Your task to perform on an android device: Go to calendar. Show me events next week Image 0: 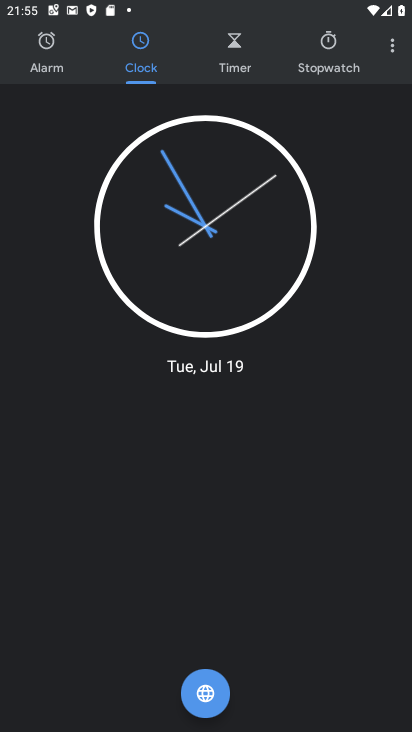
Step 0: press home button
Your task to perform on an android device: Go to calendar. Show me events next week Image 1: 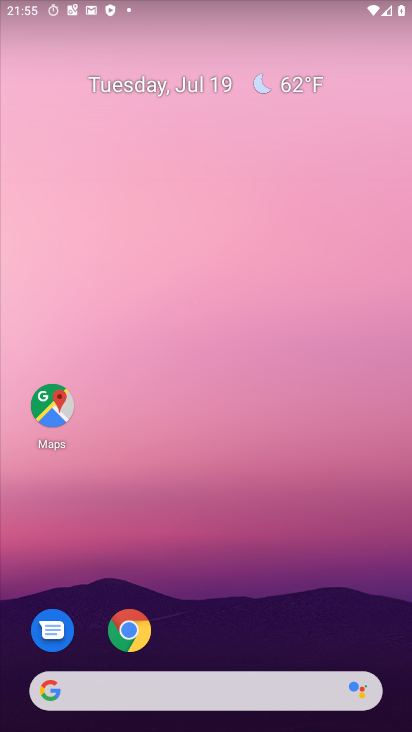
Step 1: drag from (93, 573) to (185, 266)
Your task to perform on an android device: Go to calendar. Show me events next week Image 2: 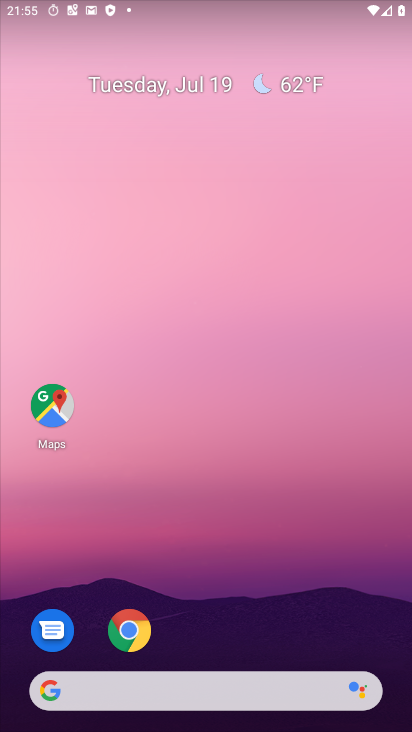
Step 2: drag from (15, 694) to (406, 280)
Your task to perform on an android device: Go to calendar. Show me events next week Image 3: 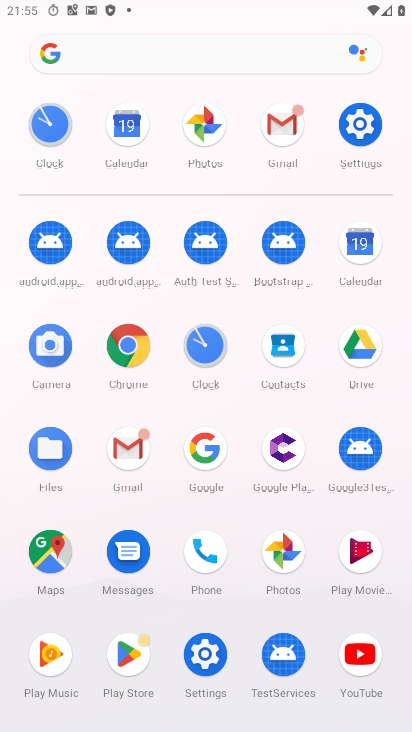
Step 3: click (368, 239)
Your task to perform on an android device: Go to calendar. Show me events next week Image 4: 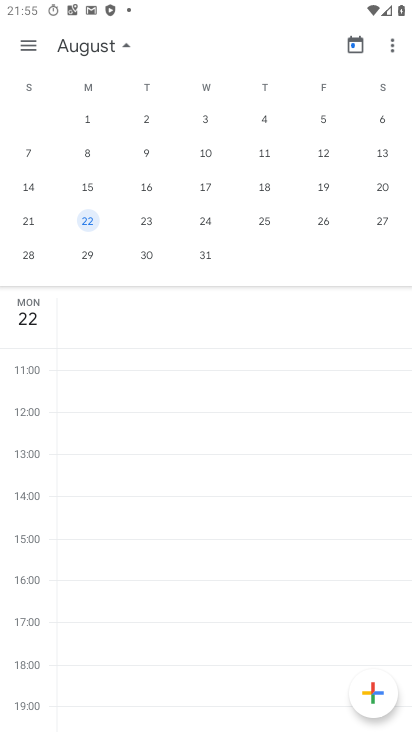
Step 4: drag from (18, 127) to (380, 94)
Your task to perform on an android device: Go to calendar. Show me events next week Image 5: 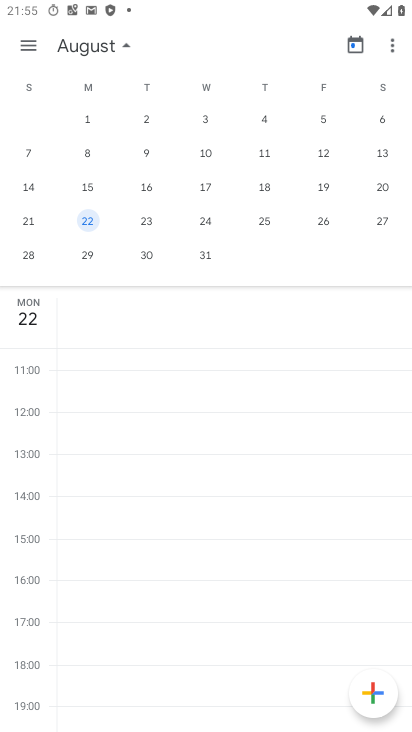
Step 5: drag from (30, 109) to (252, 132)
Your task to perform on an android device: Go to calendar. Show me events next week Image 6: 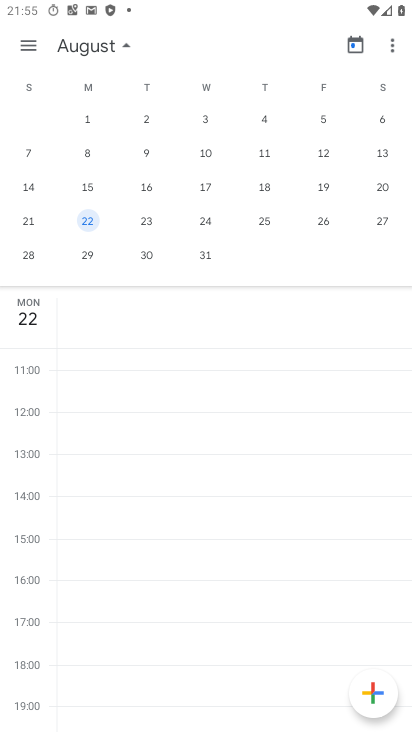
Step 6: drag from (16, 100) to (408, 126)
Your task to perform on an android device: Go to calendar. Show me events next week Image 7: 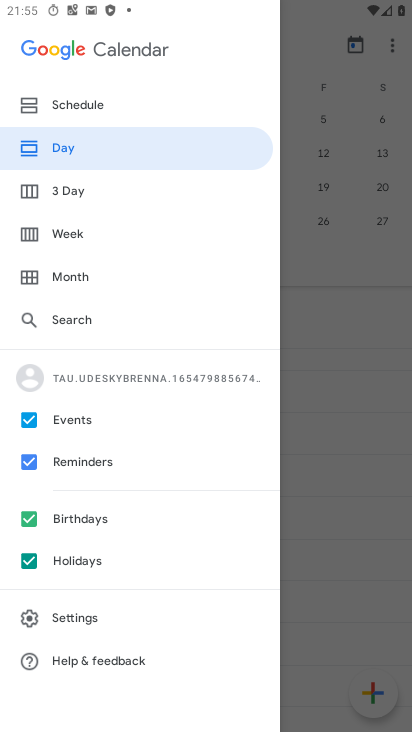
Step 7: click (95, 103)
Your task to perform on an android device: Go to calendar. Show me events next week Image 8: 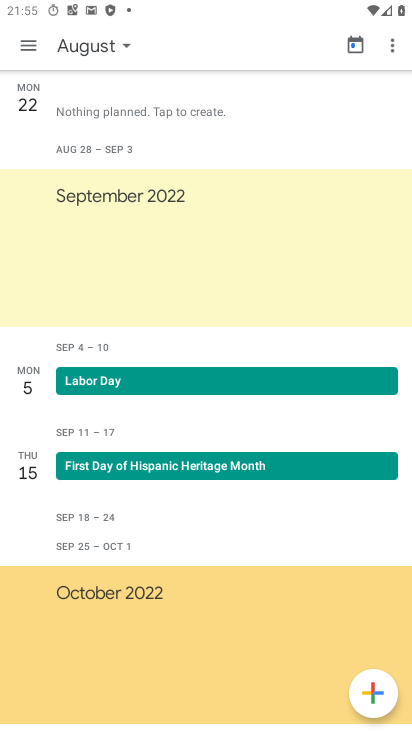
Step 8: click (109, 40)
Your task to perform on an android device: Go to calendar. Show me events next week Image 9: 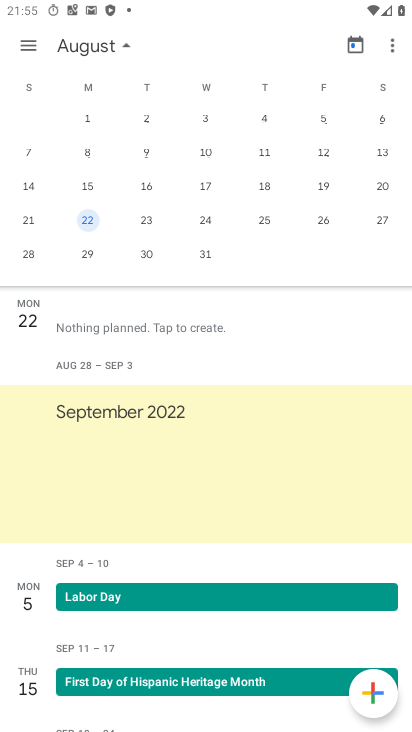
Step 9: task complete